Your task to perform on an android device: find which apps use the phone's location Image 0: 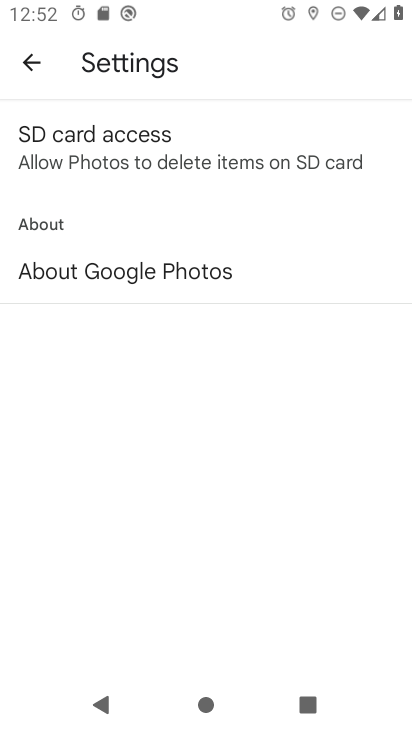
Step 0: press home button
Your task to perform on an android device: find which apps use the phone's location Image 1: 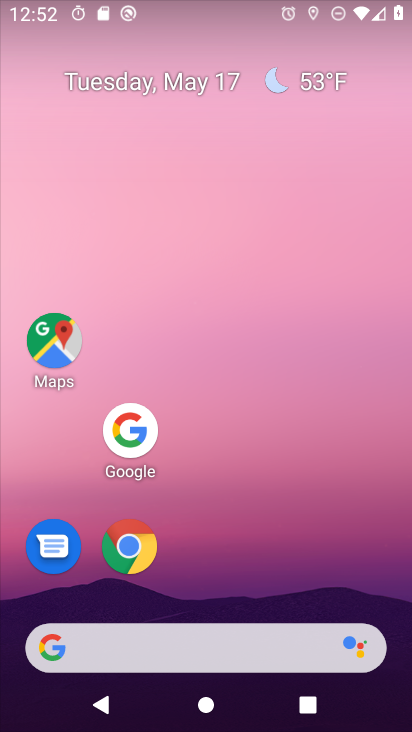
Step 1: drag from (219, 522) to (231, 70)
Your task to perform on an android device: find which apps use the phone's location Image 2: 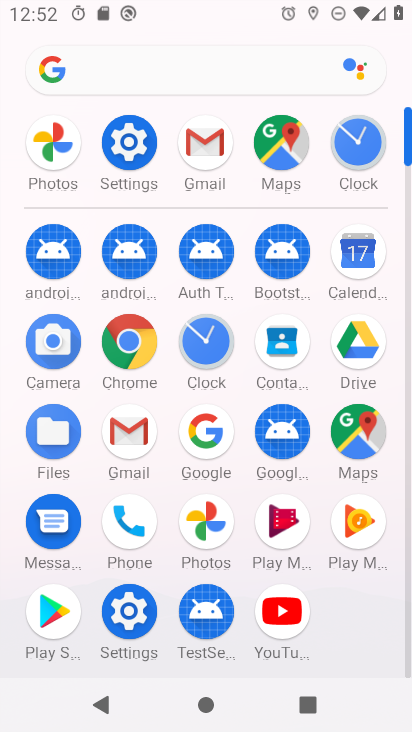
Step 2: click (123, 140)
Your task to perform on an android device: find which apps use the phone's location Image 3: 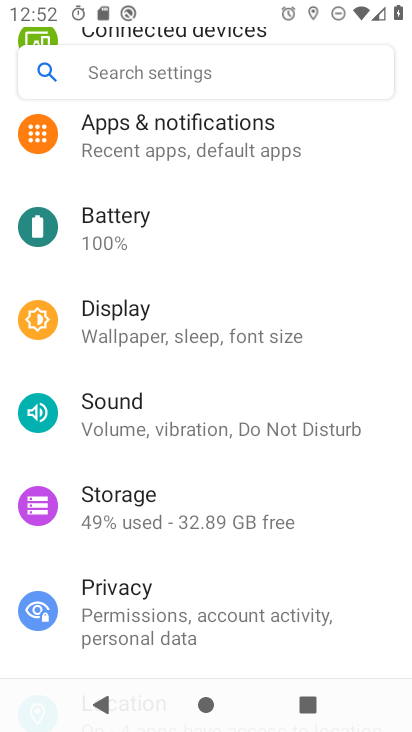
Step 3: drag from (181, 564) to (209, 159)
Your task to perform on an android device: find which apps use the phone's location Image 4: 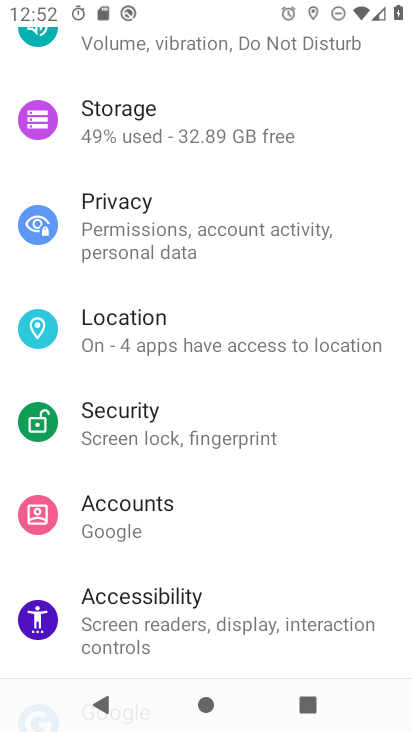
Step 4: click (120, 330)
Your task to perform on an android device: find which apps use the phone's location Image 5: 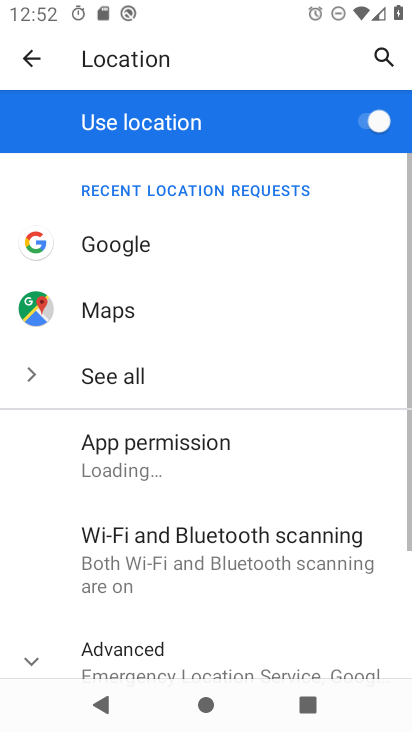
Step 5: drag from (163, 319) to (202, 119)
Your task to perform on an android device: find which apps use the phone's location Image 6: 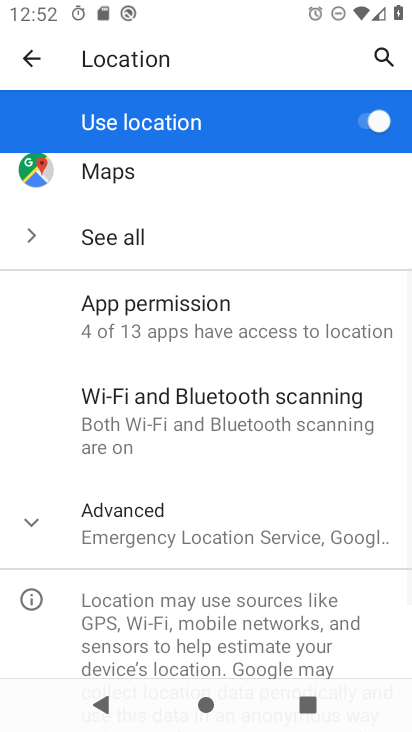
Step 6: click (211, 309)
Your task to perform on an android device: find which apps use the phone's location Image 7: 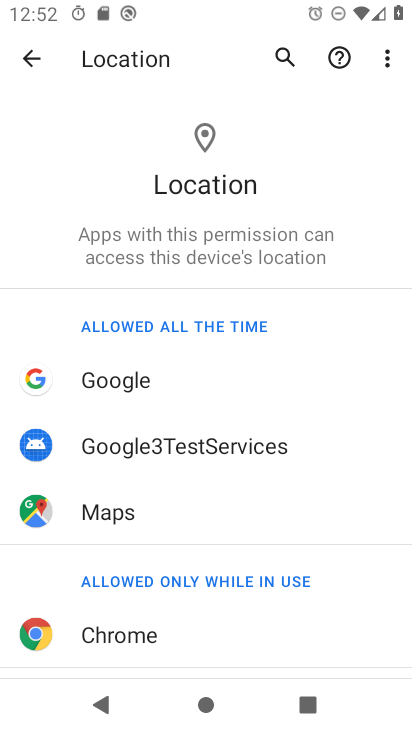
Step 7: task complete